Your task to perform on an android device: see tabs open on other devices in the chrome app Image 0: 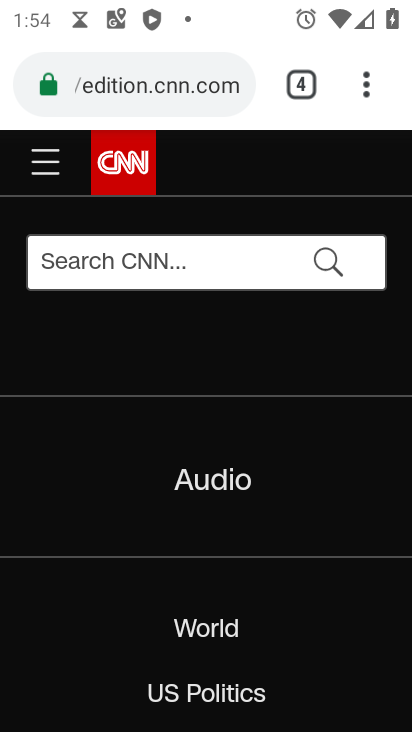
Step 0: click (373, 78)
Your task to perform on an android device: see tabs open on other devices in the chrome app Image 1: 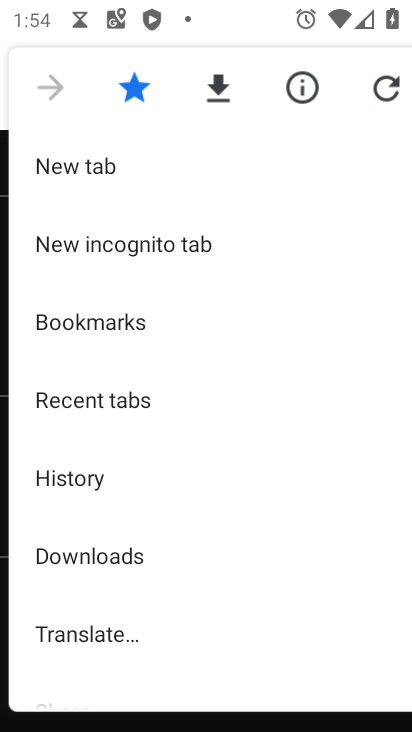
Step 1: click (127, 404)
Your task to perform on an android device: see tabs open on other devices in the chrome app Image 2: 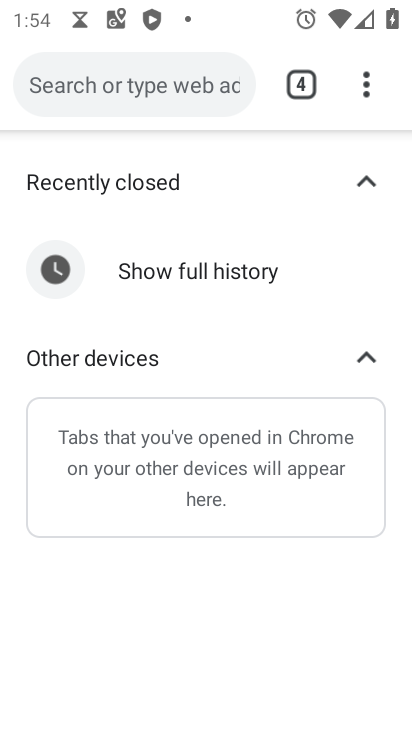
Step 2: task complete